Your task to perform on an android device: Go to CNN.com Image 0: 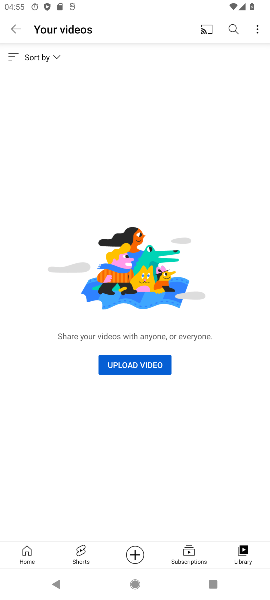
Step 0: press home button
Your task to perform on an android device: Go to CNN.com Image 1: 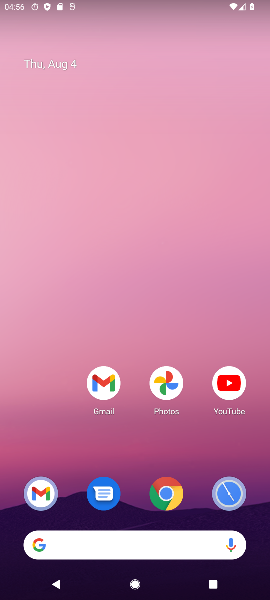
Step 1: click (69, 542)
Your task to perform on an android device: Go to CNN.com Image 2: 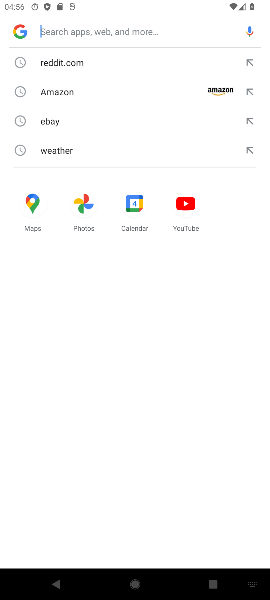
Step 2: type " CNN.com"
Your task to perform on an android device: Go to CNN.com Image 3: 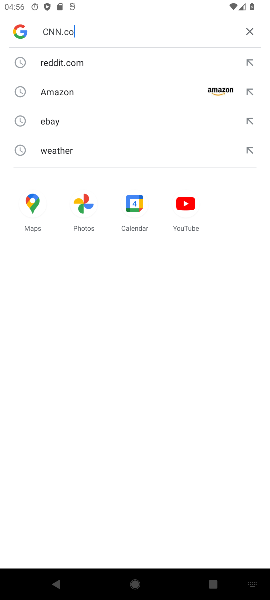
Step 3: type ""
Your task to perform on an android device: Go to CNN.com Image 4: 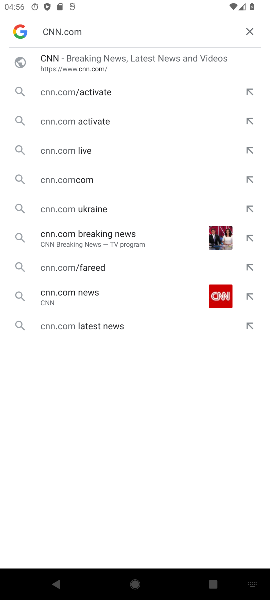
Step 4: click (68, 54)
Your task to perform on an android device: Go to CNN.com Image 5: 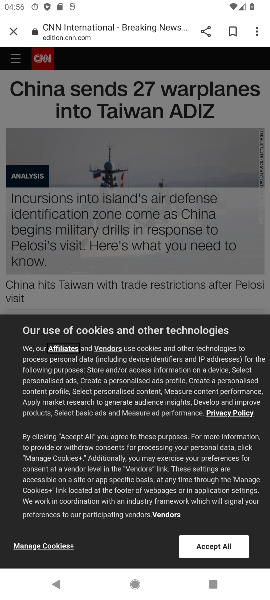
Step 5: task complete